Your task to perform on an android device: Search for pizza restaurants on Maps Image 0: 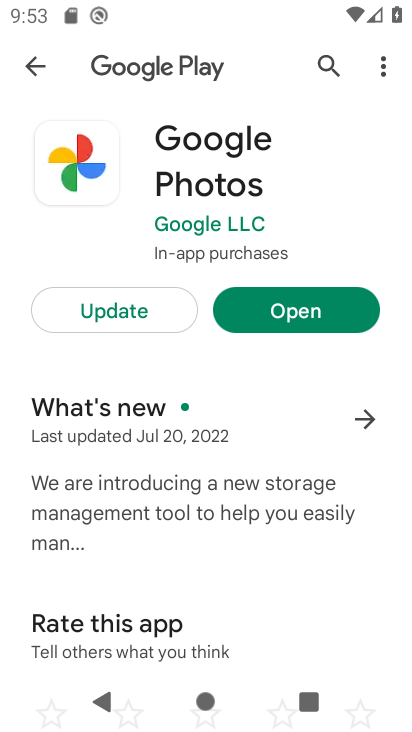
Step 0: press home button
Your task to perform on an android device: Search for pizza restaurants on Maps Image 1: 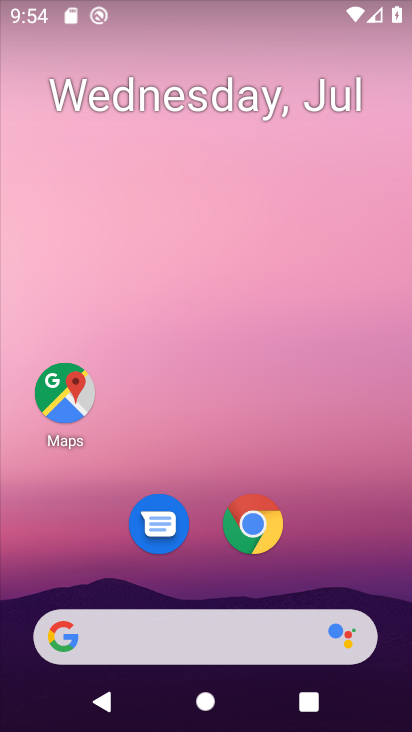
Step 1: click (65, 390)
Your task to perform on an android device: Search for pizza restaurants on Maps Image 2: 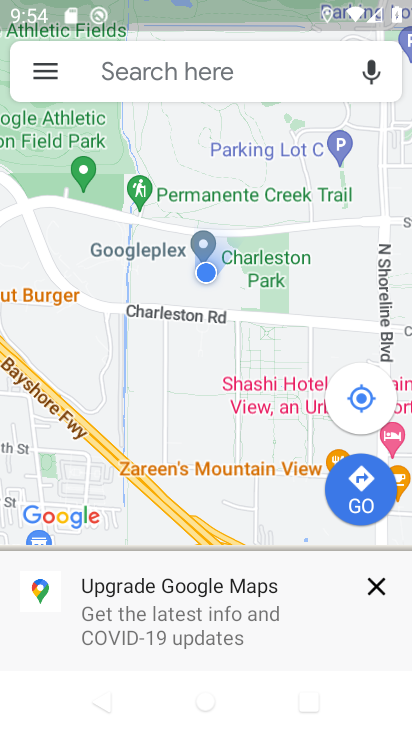
Step 2: click (192, 76)
Your task to perform on an android device: Search for pizza restaurants on Maps Image 3: 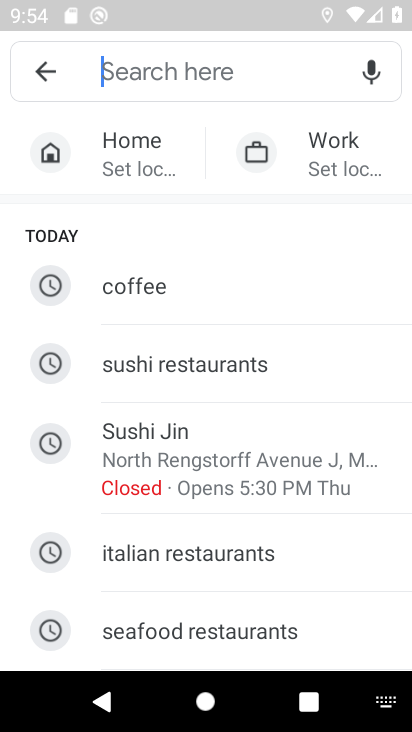
Step 3: drag from (223, 579) to (267, 177)
Your task to perform on an android device: Search for pizza restaurants on Maps Image 4: 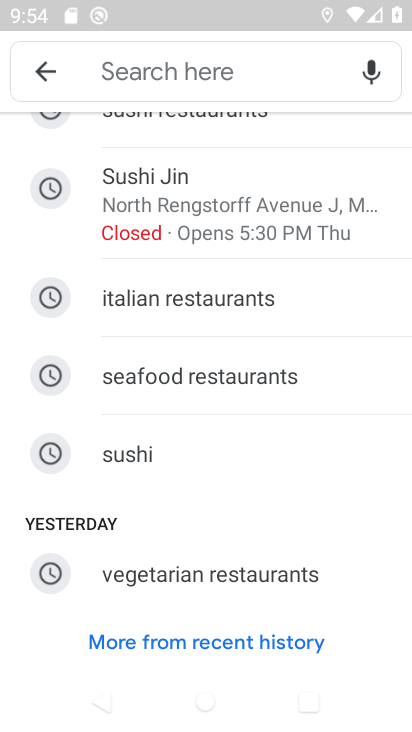
Step 4: click (242, 639)
Your task to perform on an android device: Search for pizza restaurants on Maps Image 5: 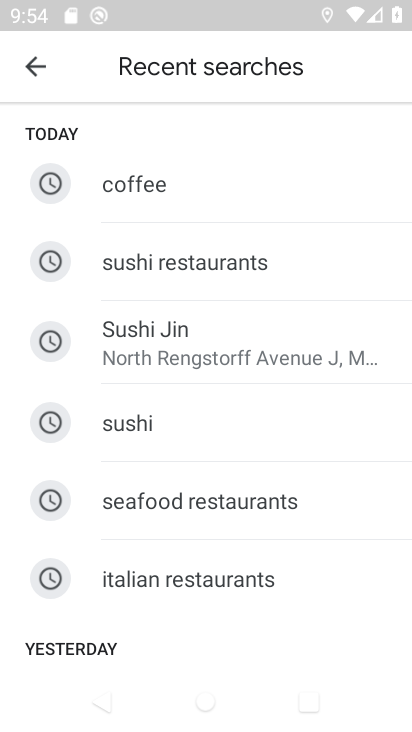
Step 5: drag from (270, 453) to (260, 166)
Your task to perform on an android device: Search for pizza restaurants on Maps Image 6: 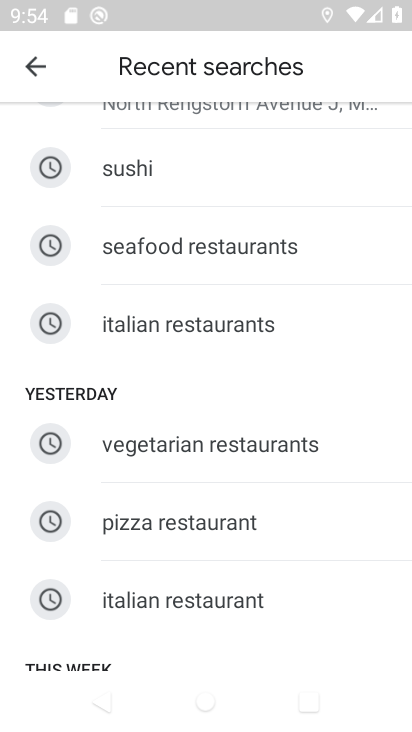
Step 6: click (226, 513)
Your task to perform on an android device: Search for pizza restaurants on Maps Image 7: 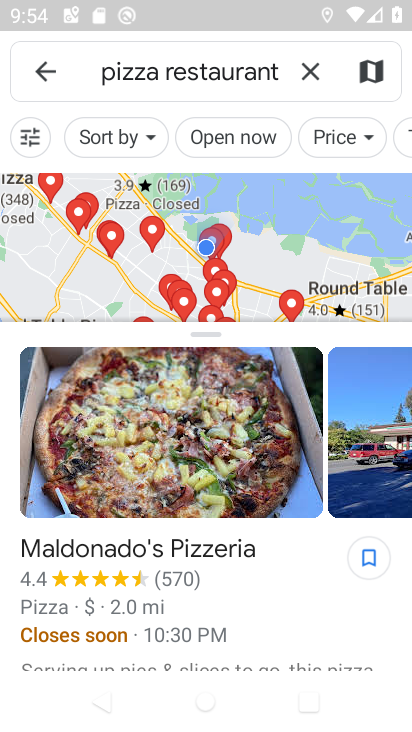
Step 7: task complete